Your task to perform on an android device: set default search engine in the chrome app Image 0: 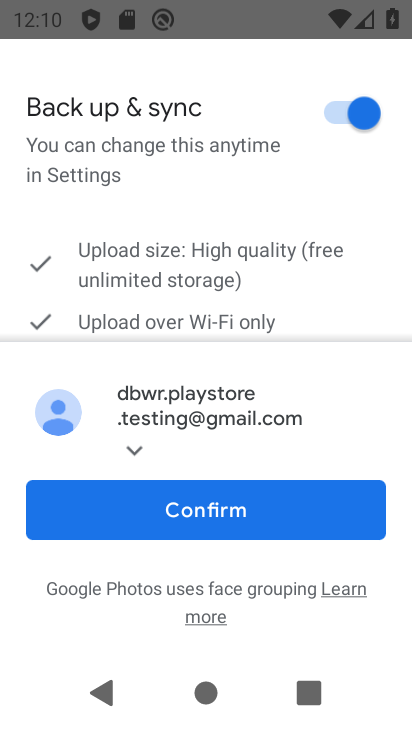
Step 0: press home button
Your task to perform on an android device: set default search engine in the chrome app Image 1: 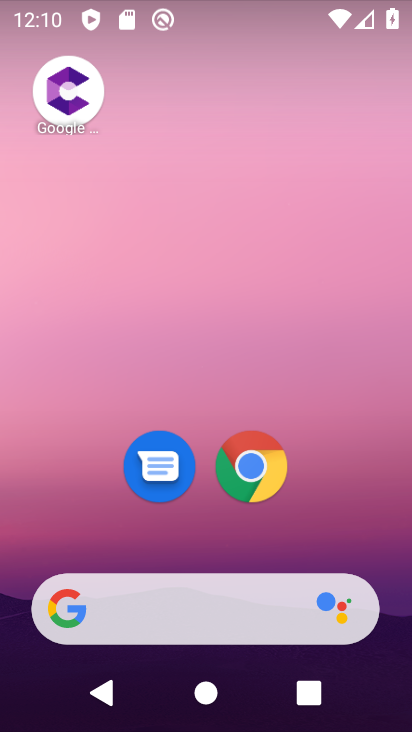
Step 1: click (271, 483)
Your task to perform on an android device: set default search engine in the chrome app Image 2: 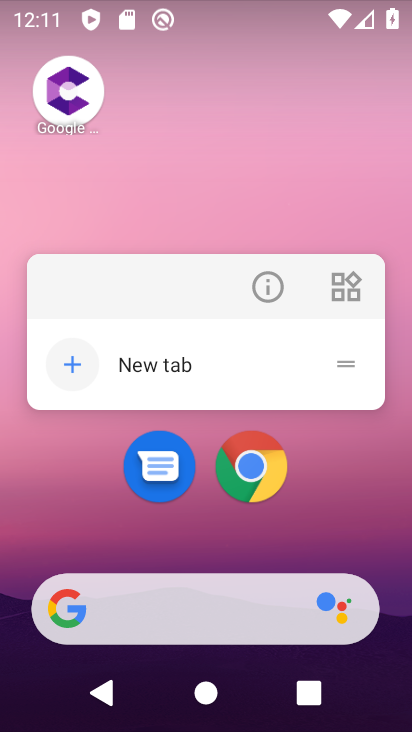
Step 2: click (270, 474)
Your task to perform on an android device: set default search engine in the chrome app Image 3: 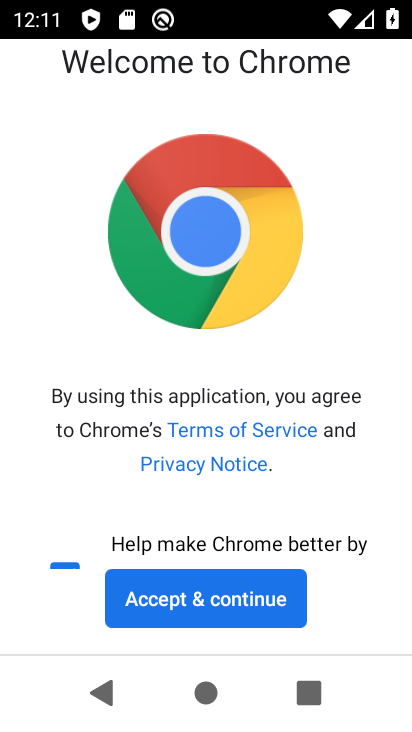
Step 3: click (211, 608)
Your task to perform on an android device: set default search engine in the chrome app Image 4: 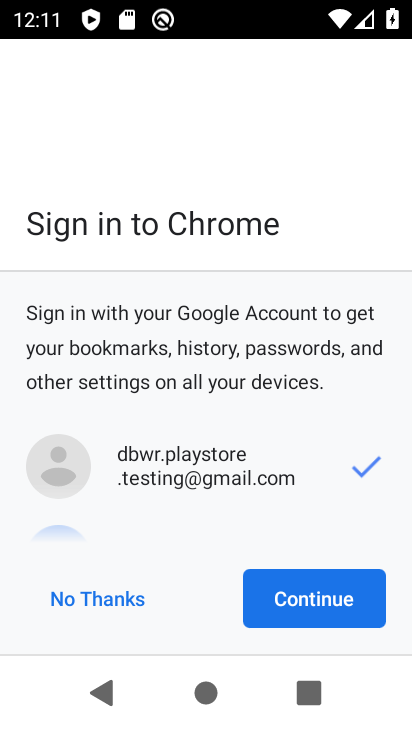
Step 4: click (351, 591)
Your task to perform on an android device: set default search engine in the chrome app Image 5: 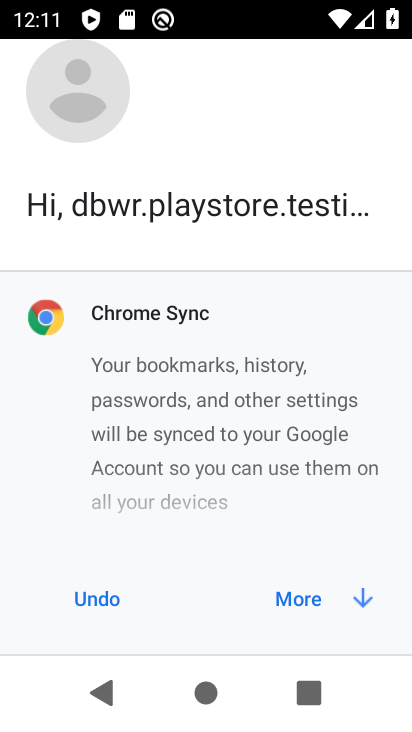
Step 5: click (311, 593)
Your task to perform on an android device: set default search engine in the chrome app Image 6: 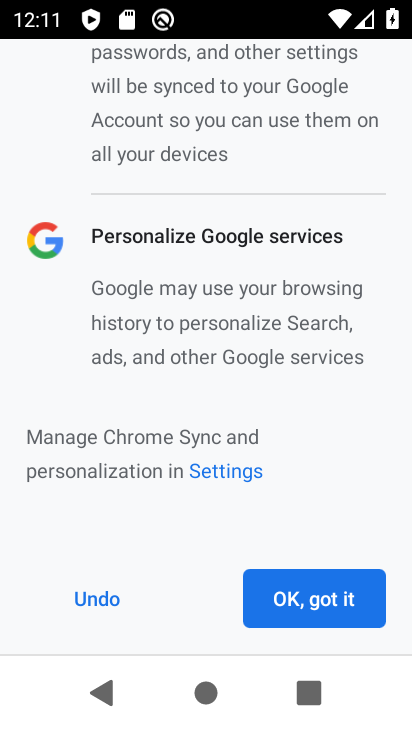
Step 6: click (311, 596)
Your task to perform on an android device: set default search engine in the chrome app Image 7: 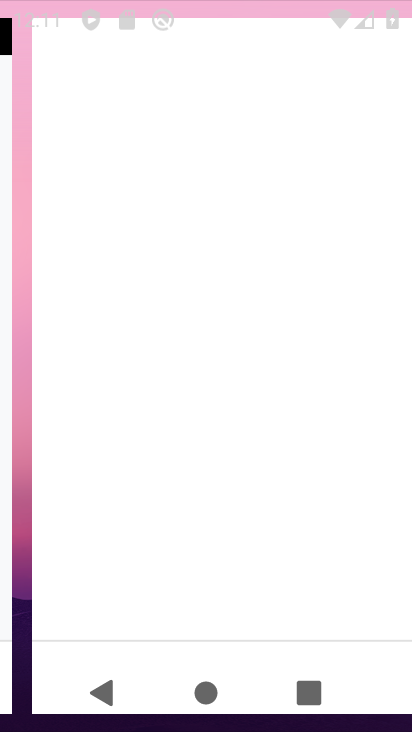
Step 7: click (311, 596)
Your task to perform on an android device: set default search engine in the chrome app Image 8: 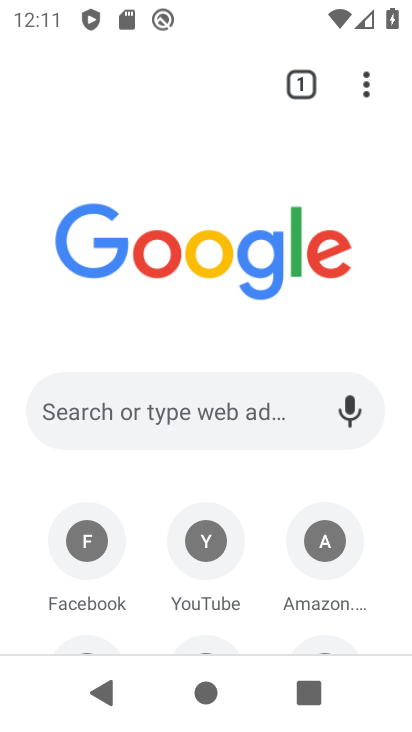
Step 8: click (370, 86)
Your task to perform on an android device: set default search engine in the chrome app Image 9: 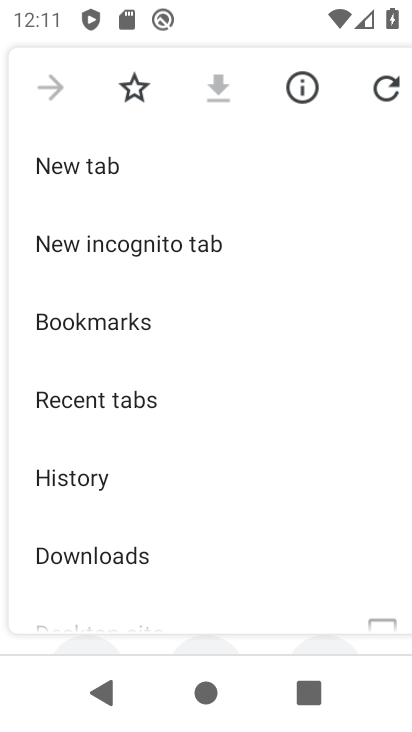
Step 9: drag from (183, 571) to (192, 285)
Your task to perform on an android device: set default search engine in the chrome app Image 10: 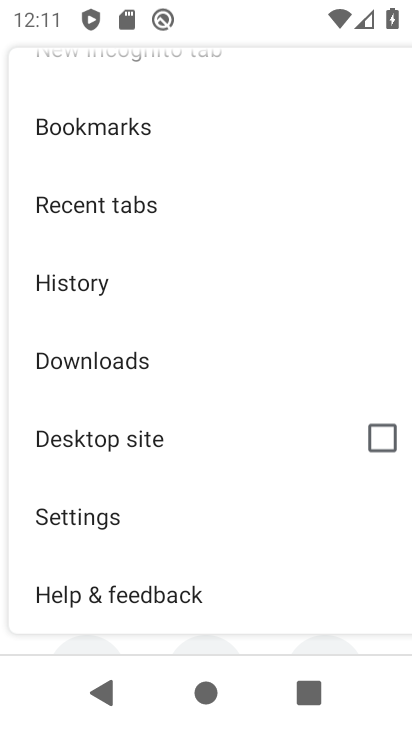
Step 10: click (137, 524)
Your task to perform on an android device: set default search engine in the chrome app Image 11: 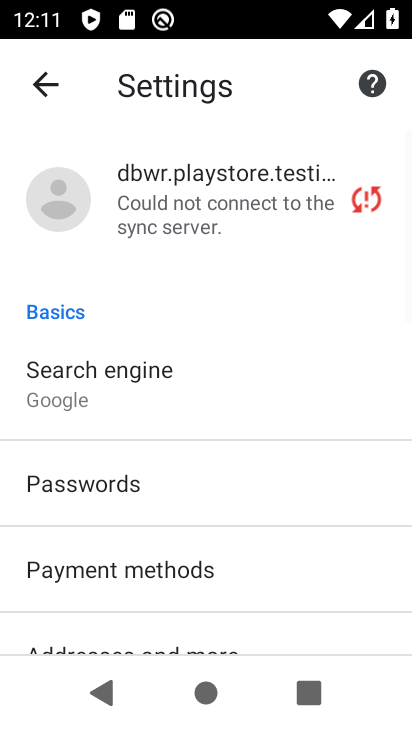
Step 11: click (114, 373)
Your task to perform on an android device: set default search engine in the chrome app Image 12: 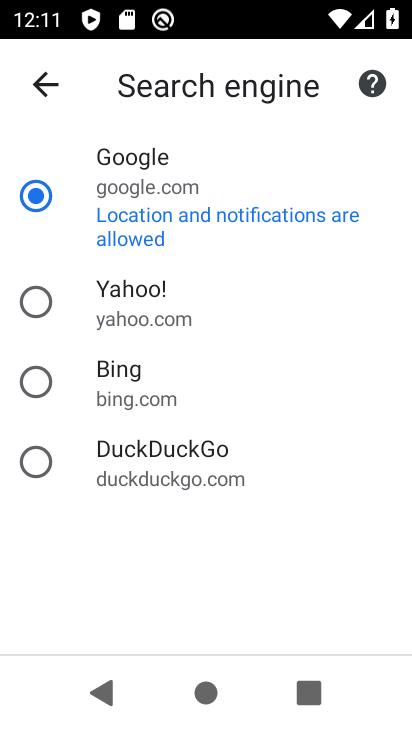
Step 12: click (136, 317)
Your task to perform on an android device: set default search engine in the chrome app Image 13: 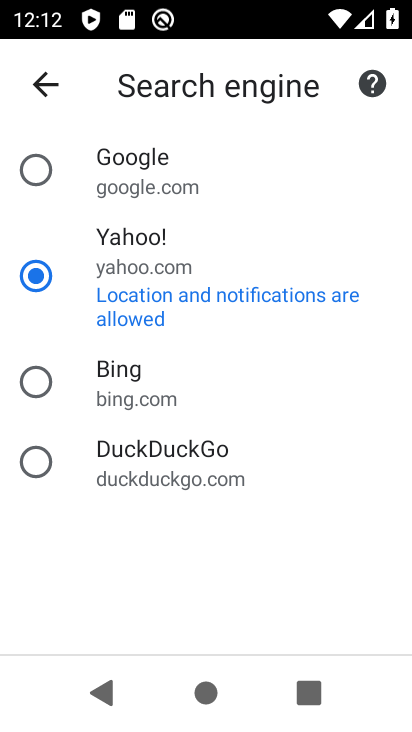
Step 13: task complete